Your task to perform on an android device: Open the stopwatch Image 0: 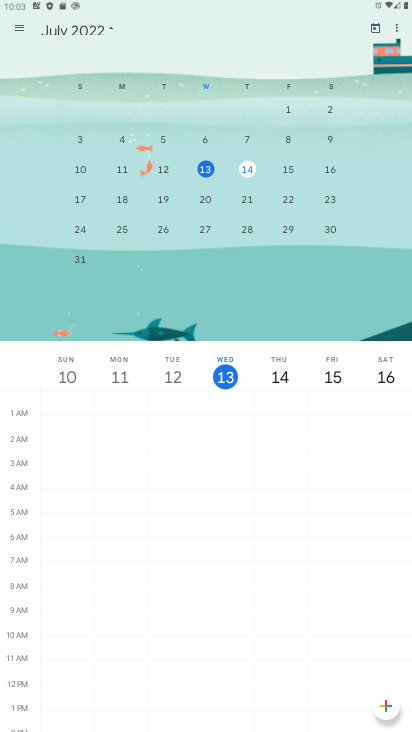
Step 0: press home button
Your task to perform on an android device: Open the stopwatch Image 1: 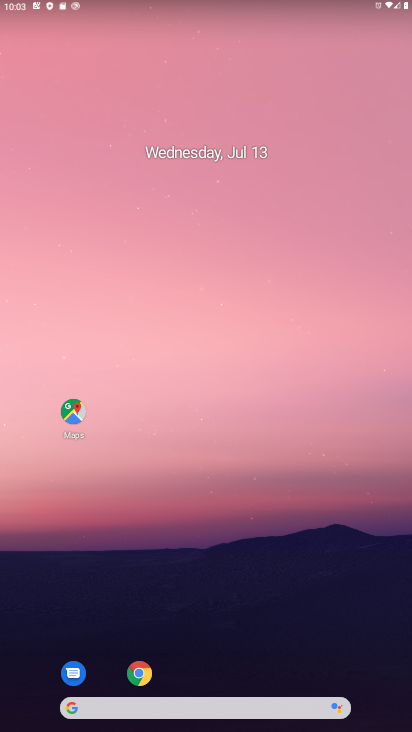
Step 1: drag from (228, 673) to (205, 144)
Your task to perform on an android device: Open the stopwatch Image 2: 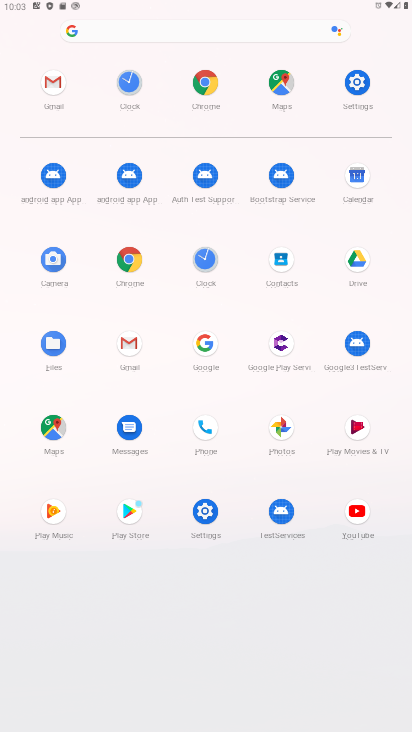
Step 2: click (204, 269)
Your task to perform on an android device: Open the stopwatch Image 3: 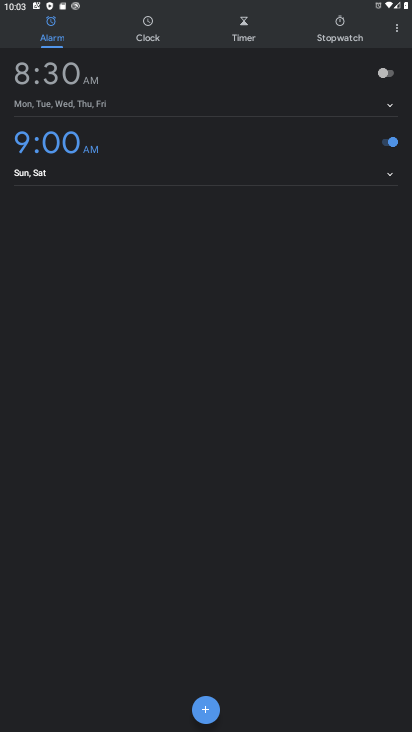
Step 3: click (333, 24)
Your task to perform on an android device: Open the stopwatch Image 4: 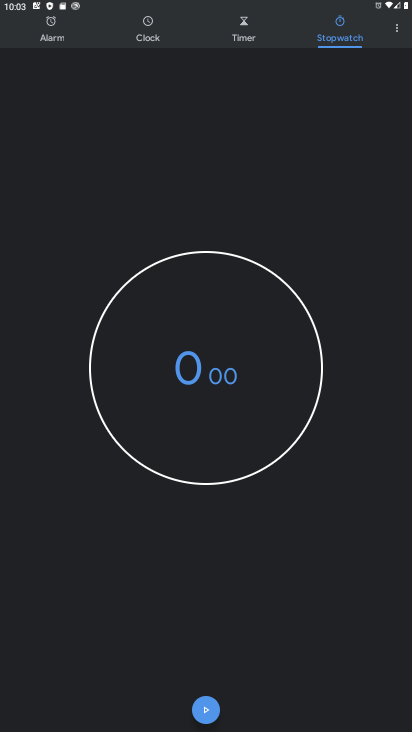
Step 4: task complete